Your task to perform on an android device: turn on javascript in the chrome app Image 0: 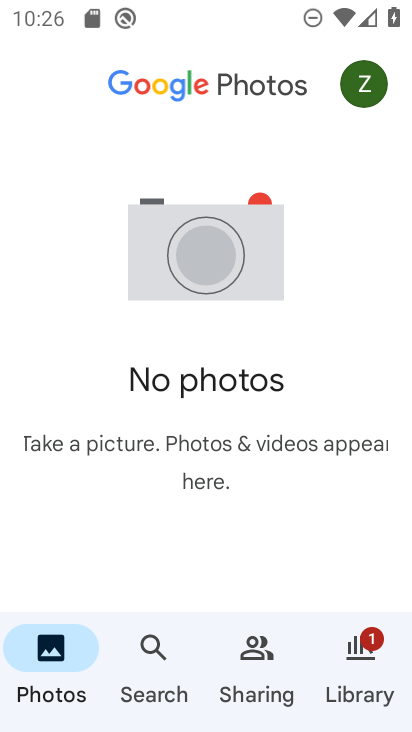
Step 0: press home button
Your task to perform on an android device: turn on javascript in the chrome app Image 1: 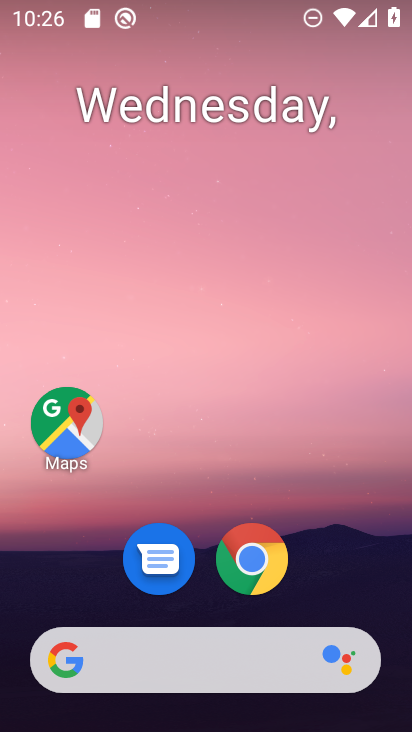
Step 1: drag from (366, 577) to (393, 158)
Your task to perform on an android device: turn on javascript in the chrome app Image 2: 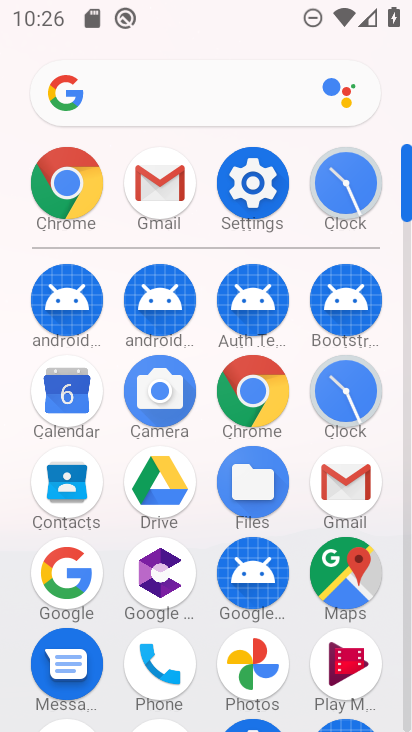
Step 2: click (269, 397)
Your task to perform on an android device: turn on javascript in the chrome app Image 3: 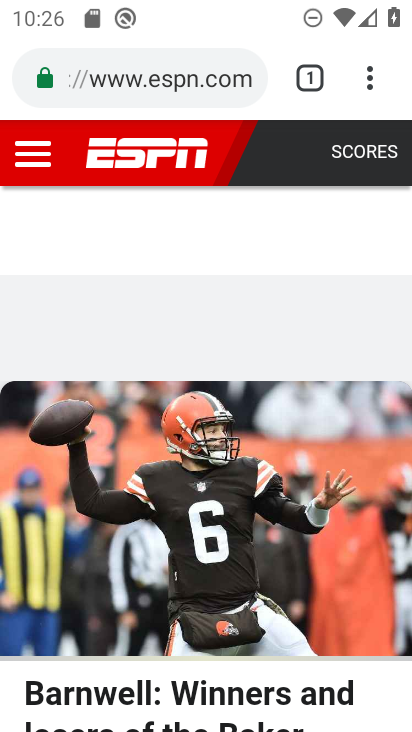
Step 3: click (372, 85)
Your task to perform on an android device: turn on javascript in the chrome app Image 4: 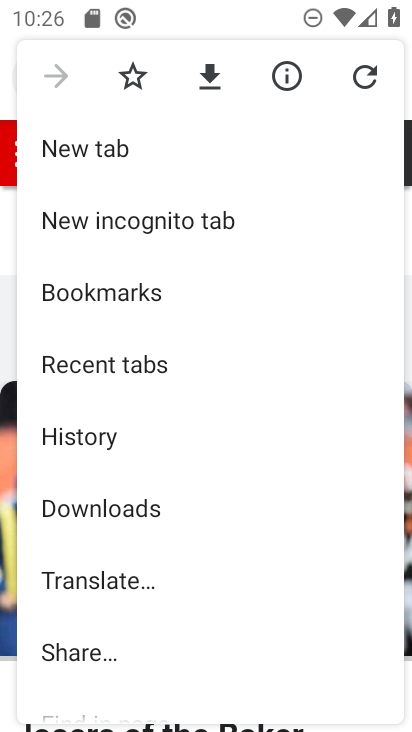
Step 4: drag from (309, 451) to (317, 313)
Your task to perform on an android device: turn on javascript in the chrome app Image 5: 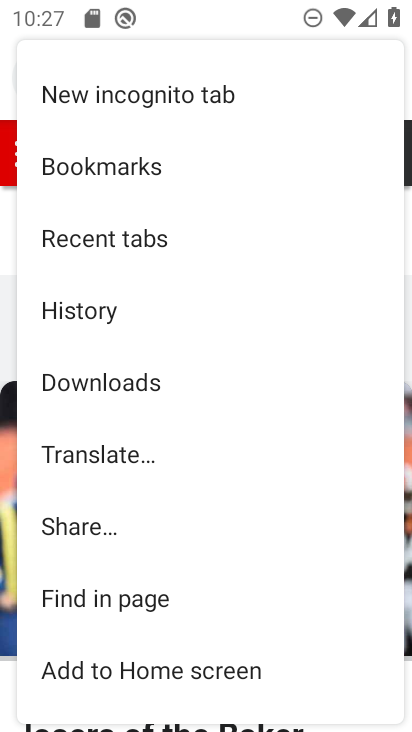
Step 5: drag from (302, 510) to (300, 373)
Your task to perform on an android device: turn on javascript in the chrome app Image 6: 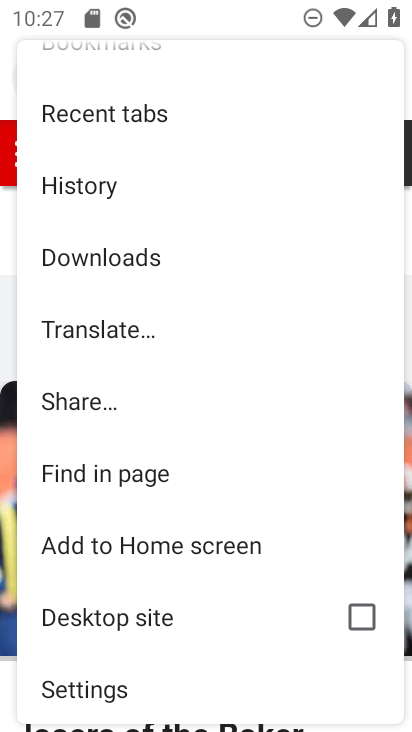
Step 6: drag from (297, 469) to (293, 331)
Your task to perform on an android device: turn on javascript in the chrome app Image 7: 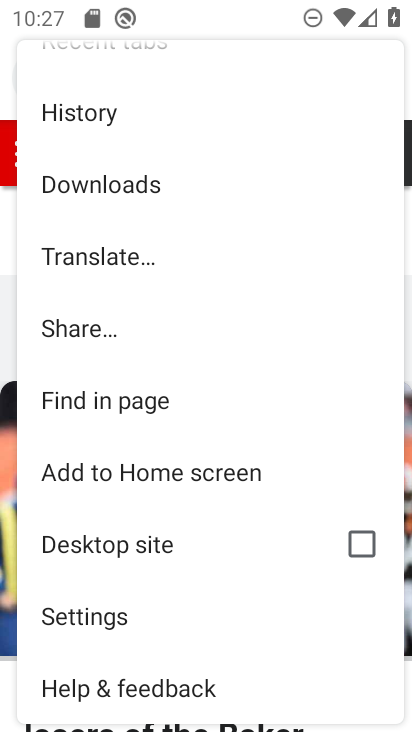
Step 7: click (135, 621)
Your task to perform on an android device: turn on javascript in the chrome app Image 8: 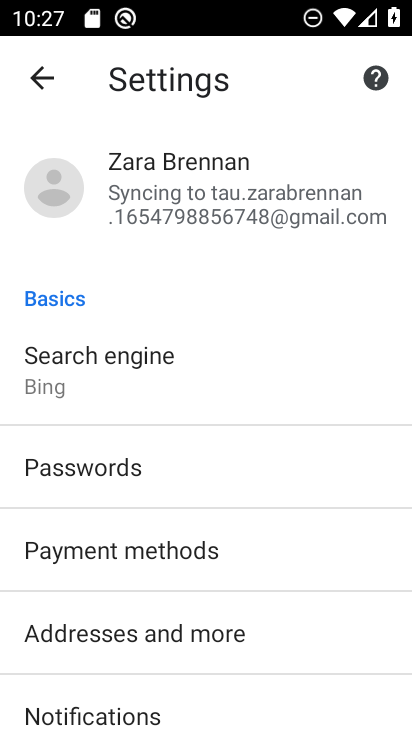
Step 8: drag from (323, 528) to (325, 421)
Your task to perform on an android device: turn on javascript in the chrome app Image 9: 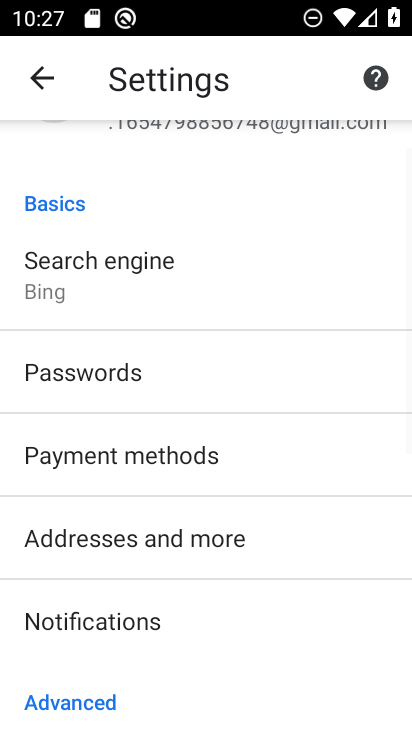
Step 9: drag from (337, 523) to (343, 446)
Your task to perform on an android device: turn on javascript in the chrome app Image 10: 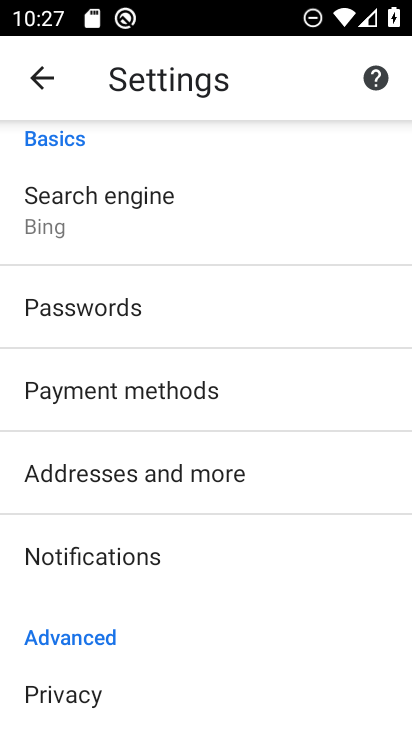
Step 10: drag from (342, 553) to (345, 459)
Your task to perform on an android device: turn on javascript in the chrome app Image 11: 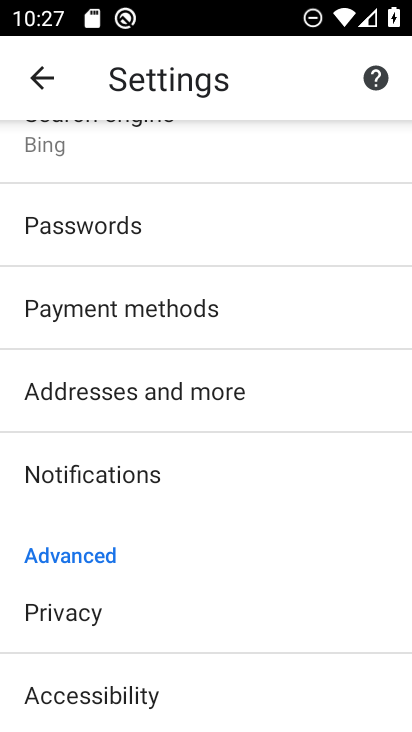
Step 11: drag from (345, 576) to (371, 431)
Your task to perform on an android device: turn on javascript in the chrome app Image 12: 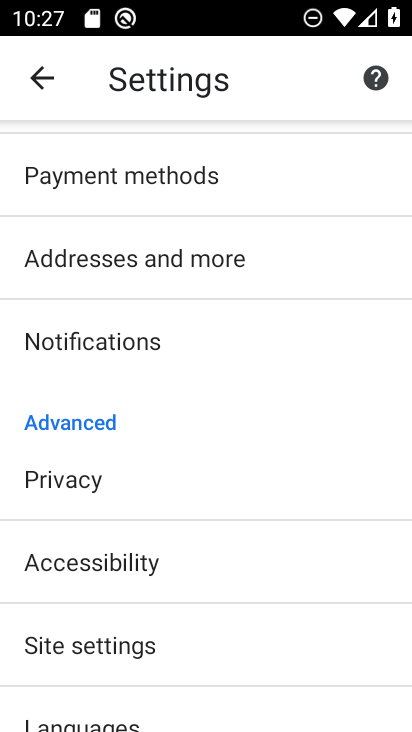
Step 12: drag from (333, 572) to (331, 478)
Your task to perform on an android device: turn on javascript in the chrome app Image 13: 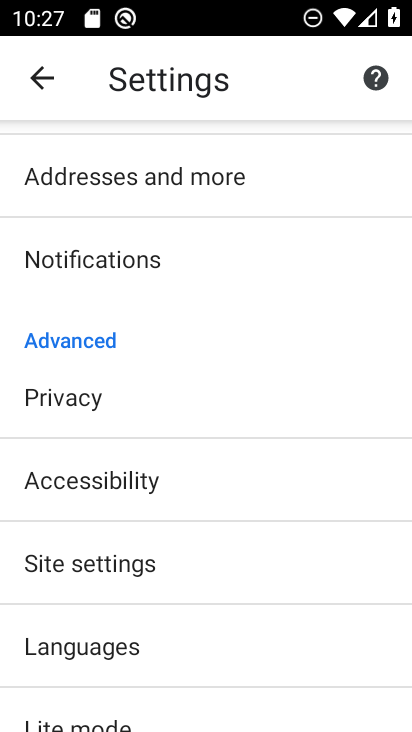
Step 13: click (312, 566)
Your task to perform on an android device: turn on javascript in the chrome app Image 14: 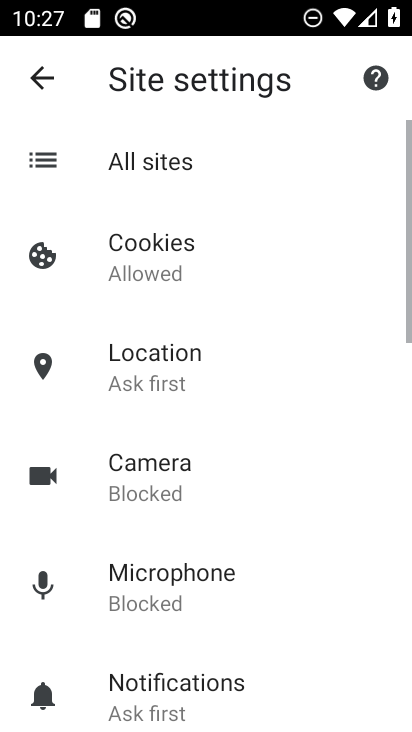
Step 14: drag from (312, 566) to (319, 480)
Your task to perform on an android device: turn on javascript in the chrome app Image 15: 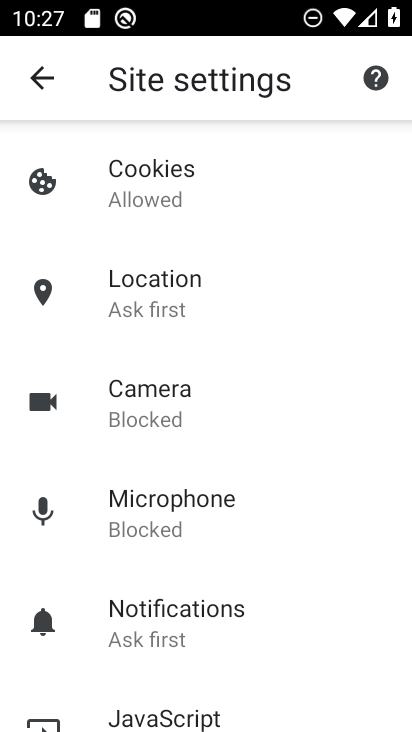
Step 15: drag from (346, 616) to (354, 490)
Your task to perform on an android device: turn on javascript in the chrome app Image 16: 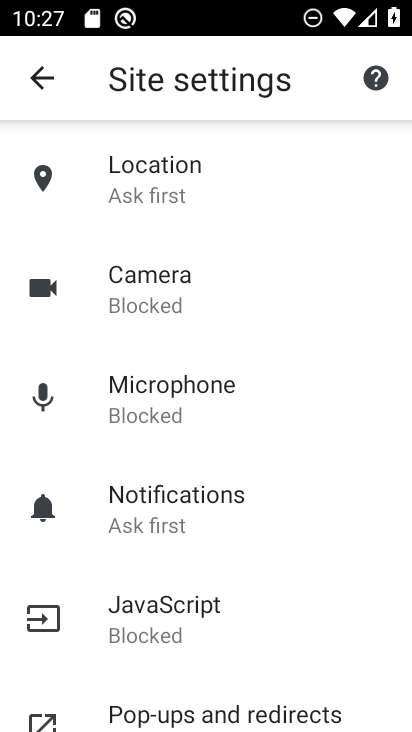
Step 16: drag from (353, 568) to (357, 465)
Your task to perform on an android device: turn on javascript in the chrome app Image 17: 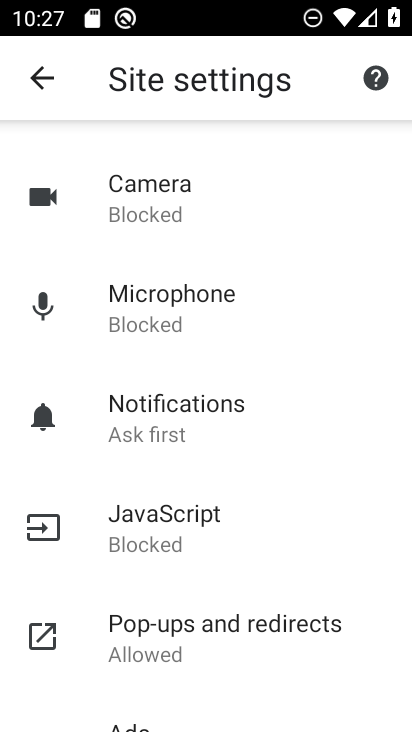
Step 17: click (271, 545)
Your task to perform on an android device: turn on javascript in the chrome app Image 18: 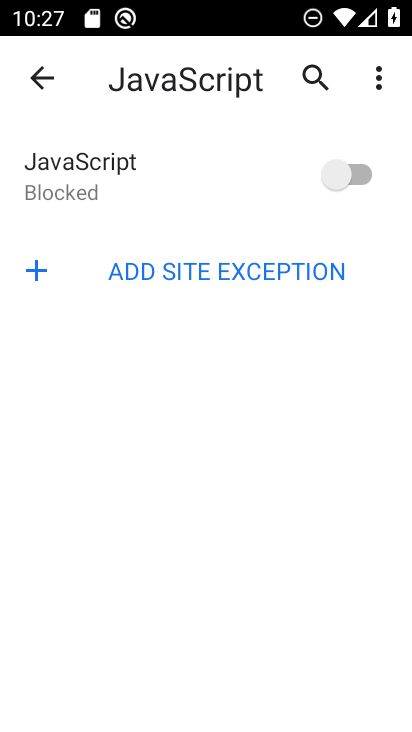
Step 18: click (352, 183)
Your task to perform on an android device: turn on javascript in the chrome app Image 19: 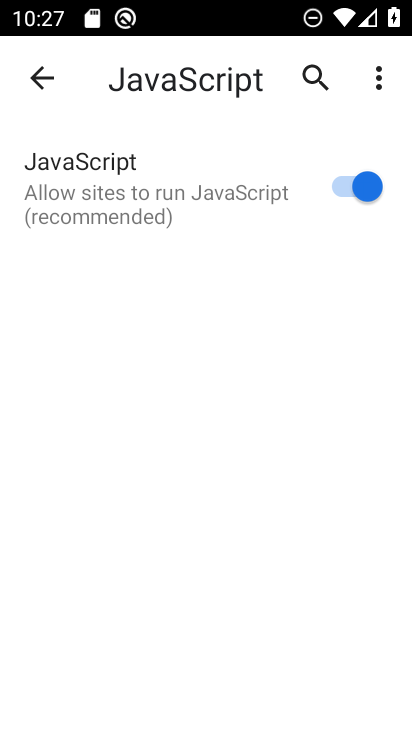
Step 19: task complete